Your task to perform on an android device: open a new tab in the chrome app Image 0: 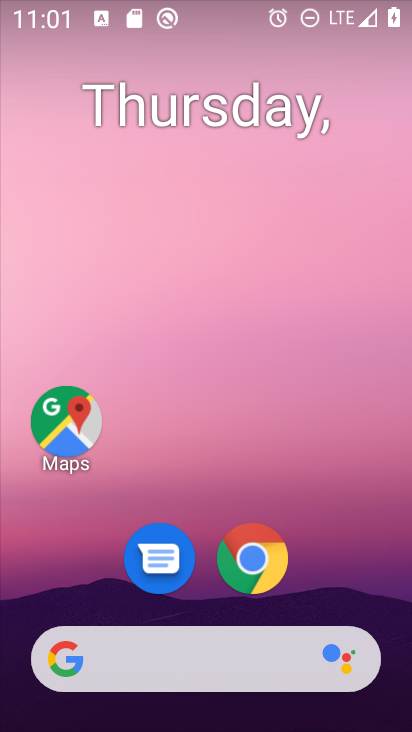
Step 0: click (250, 558)
Your task to perform on an android device: open a new tab in the chrome app Image 1: 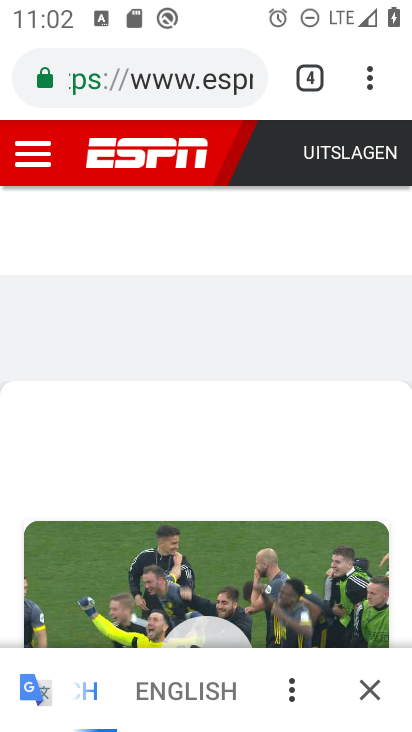
Step 1: click (367, 77)
Your task to perform on an android device: open a new tab in the chrome app Image 2: 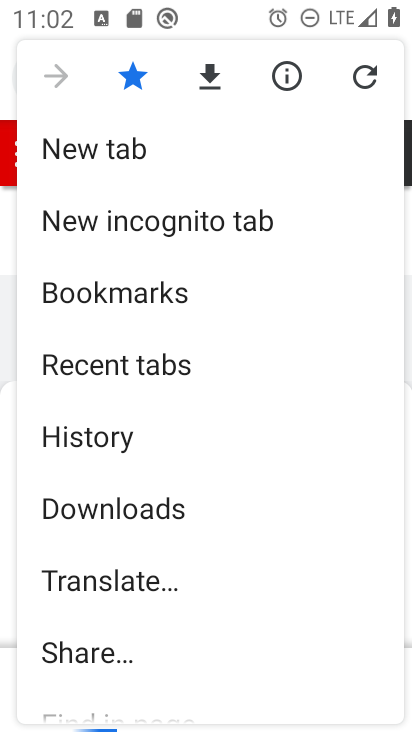
Step 2: click (63, 147)
Your task to perform on an android device: open a new tab in the chrome app Image 3: 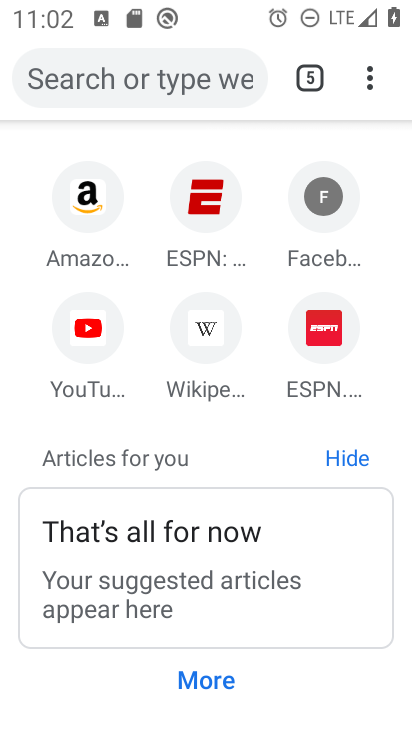
Step 3: task complete